Your task to perform on an android device: allow cookies in the chrome app Image 0: 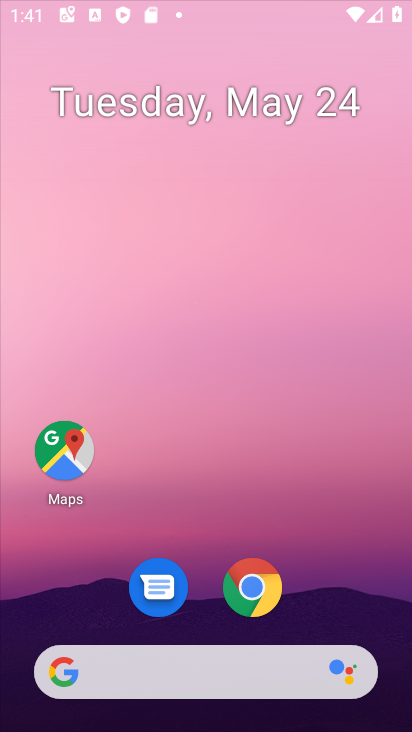
Step 0: drag from (233, 718) to (219, 138)
Your task to perform on an android device: allow cookies in the chrome app Image 1: 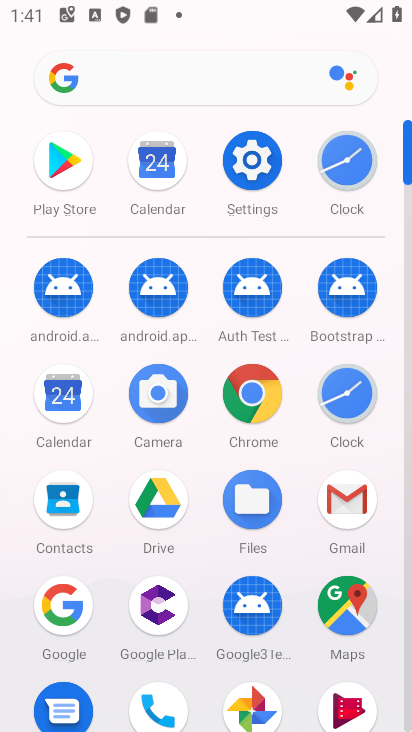
Step 1: click (254, 382)
Your task to perform on an android device: allow cookies in the chrome app Image 2: 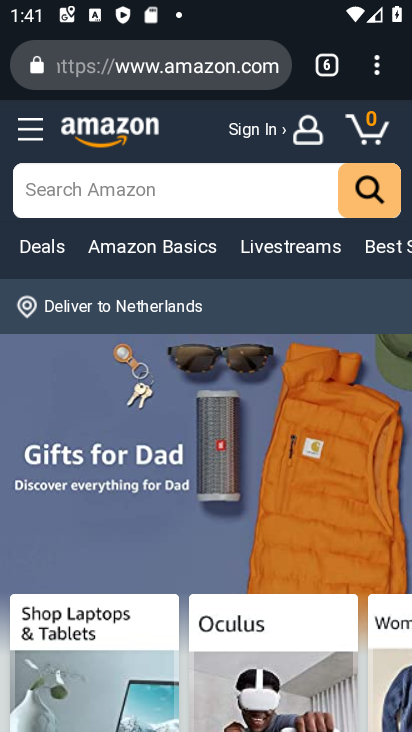
Step 2: click (388, 66)
Your task to perform on an android device: allow cookies in the chrome app Image 3: 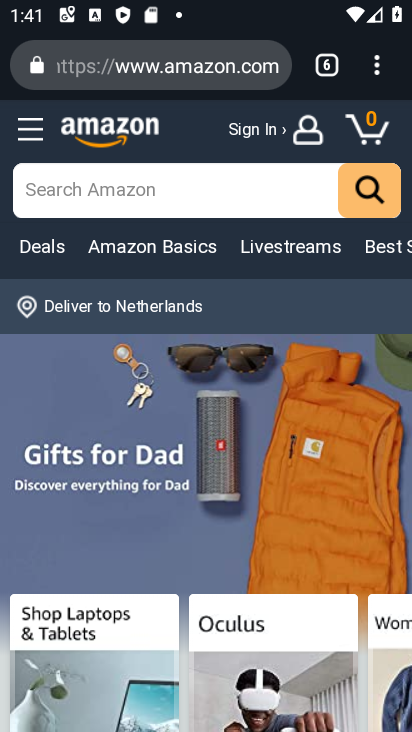
Step 3: click (377, 62)
Your task to perform on an android device: allow cookies in the chrome app Image 4: 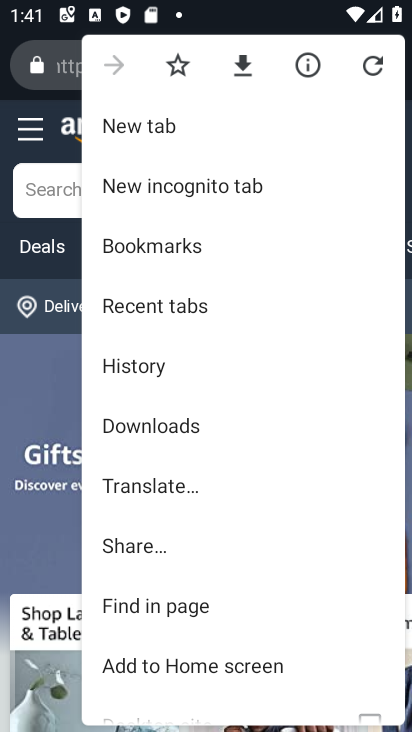
Step 4: drag from (248, 586) to (241, 298)
Your task to perform on an android device: allow cookies in the chrome app Image 5: 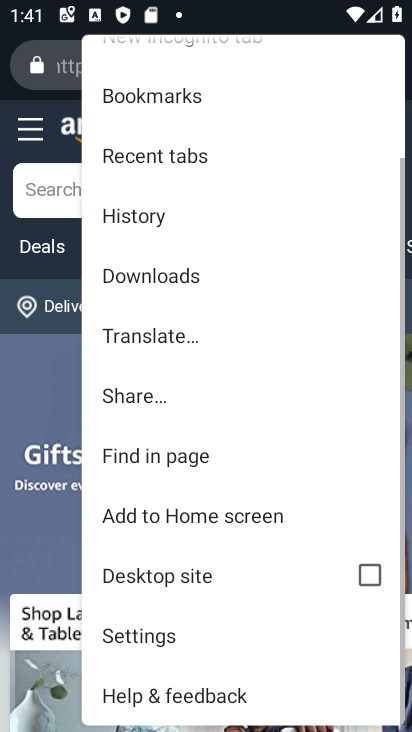
Step 5: click (155, 647)
Your task to perform on an android device: allow cookies in the chrome app Image 6: 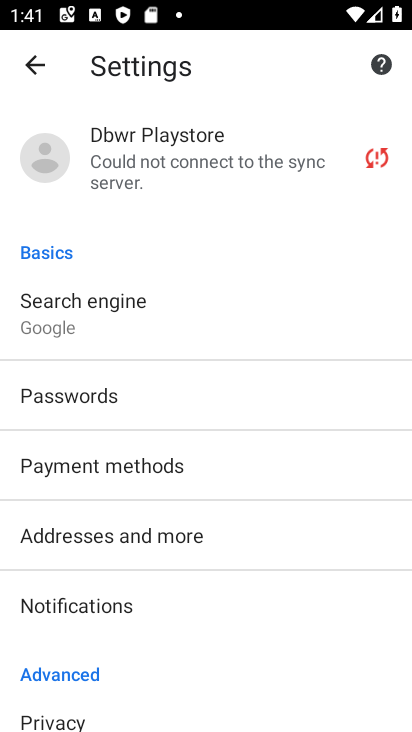
Step 6: drag from (208, 678) to (153, 166)
Your task to perform on an android device: allow cookies in the chrome app Image 7: 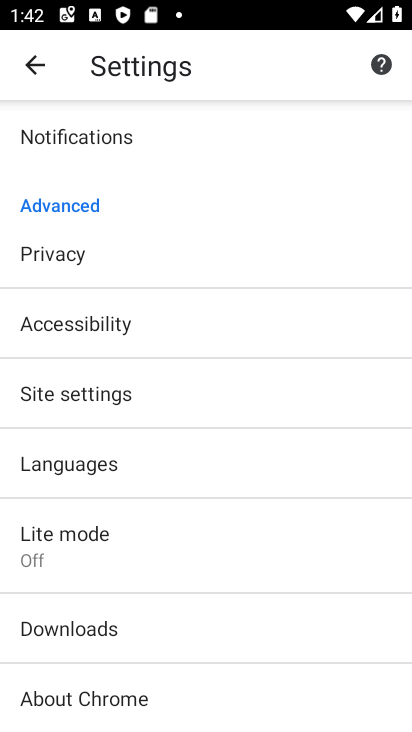
Step 7: click (118, 401)
Your task to perform on an android device: allow cookies in the chrome app Image 8: 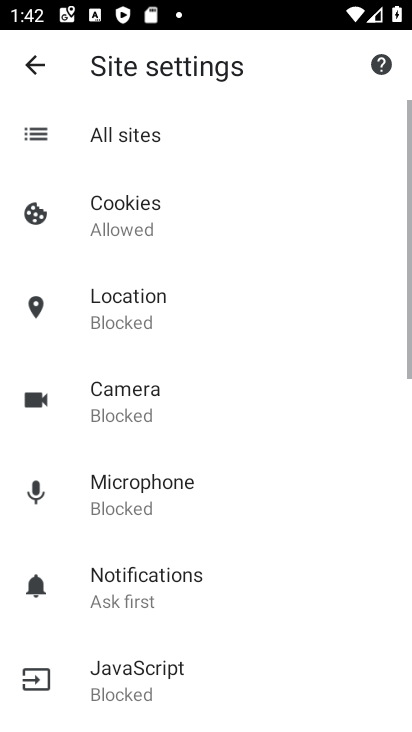
Step 8: click (147, 207)
Your task to perform on an android device: allow cookies in the chrome app Image 9: 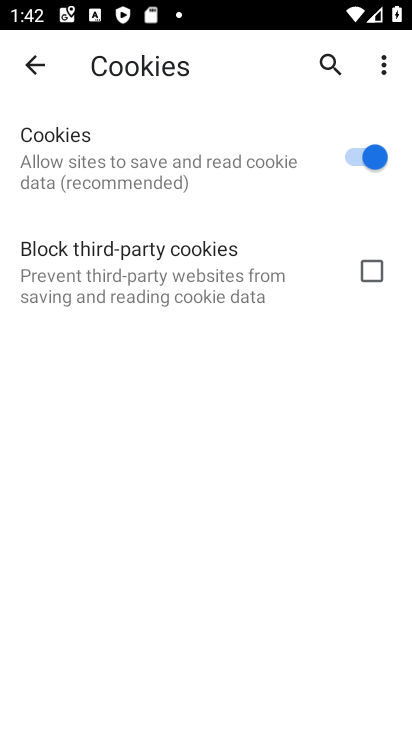
Step 9: task complete